Your task to perform on an android device: check the backup settings in the google photos Image 0: 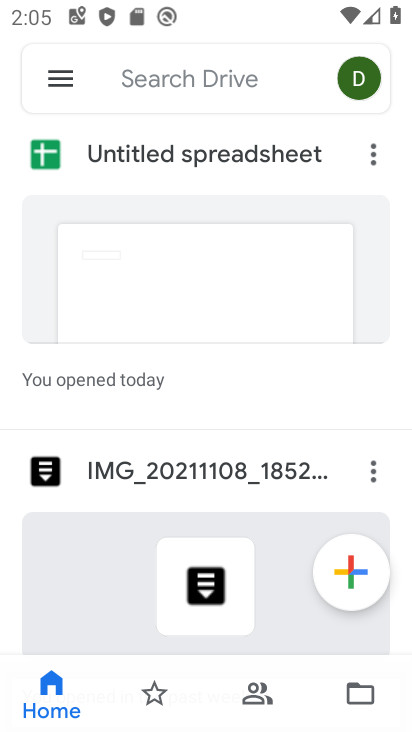
Step 0: press home button
Your task to perform on an android device: check the backup settings in the google photos Image 1: 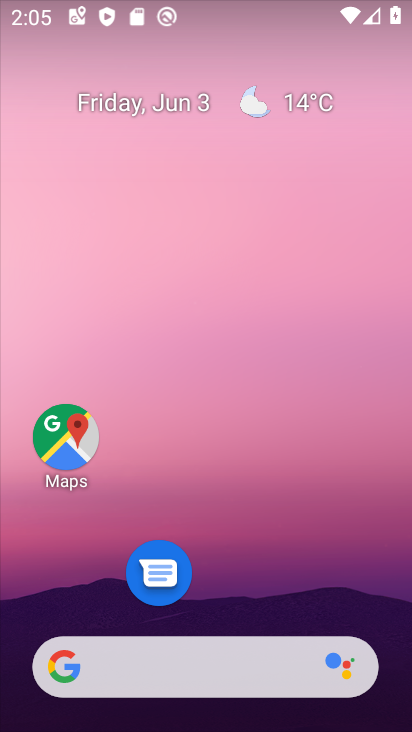
Step 1: drag from (333, 661) to (337, 59)
Your task to perform on an android device: check the backup settings in the google photos Image 2: 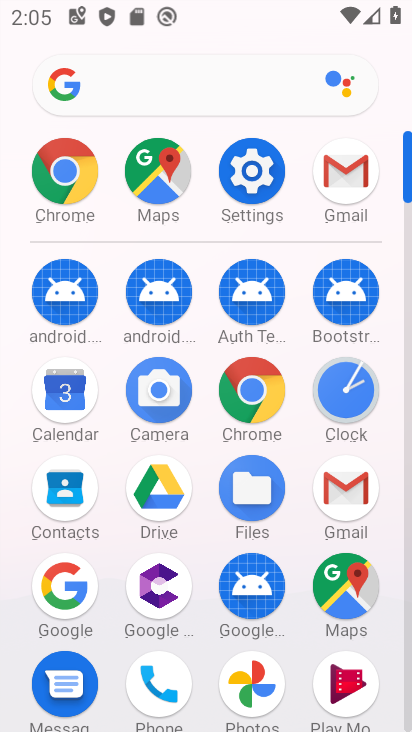
Step 2: click (255, 684)
Your task to perform on an android device: check the backup settings in the google photos Image 3: 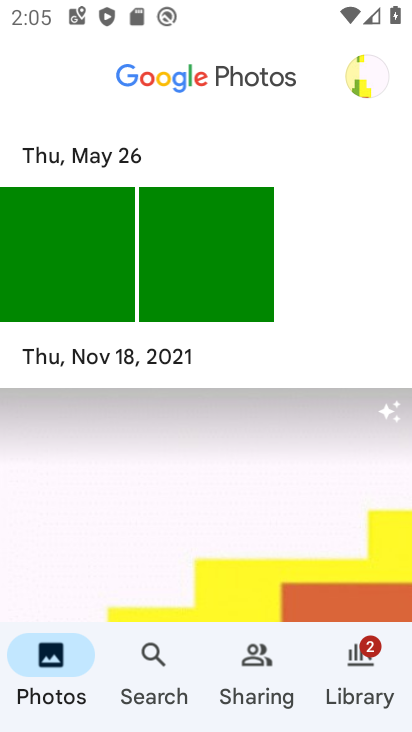
Step 3: click (379, 85)
Your task to perform on an android device: check the backup settings in the google photos Image 4: 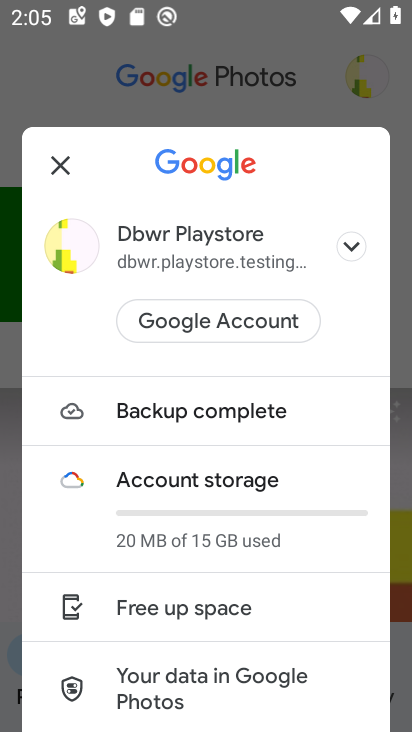
Step 4: click (213, 407)
Your task to perform on an android device: check the backup settings in the google photos Image 5: 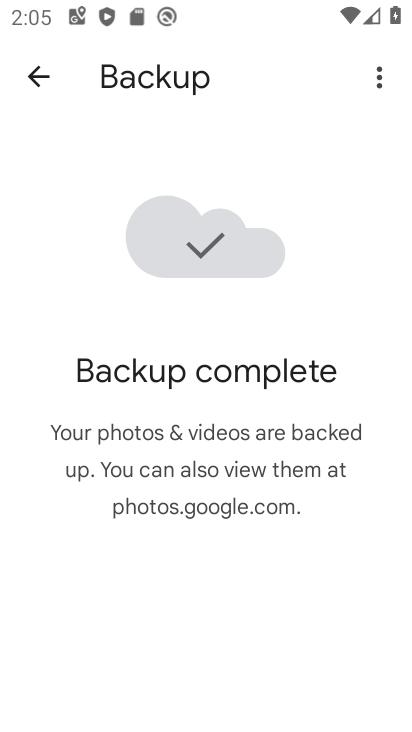
Step 5: click (365, 79)
Your task to perform on an android device: check the backup settings in the google photos Image 6: 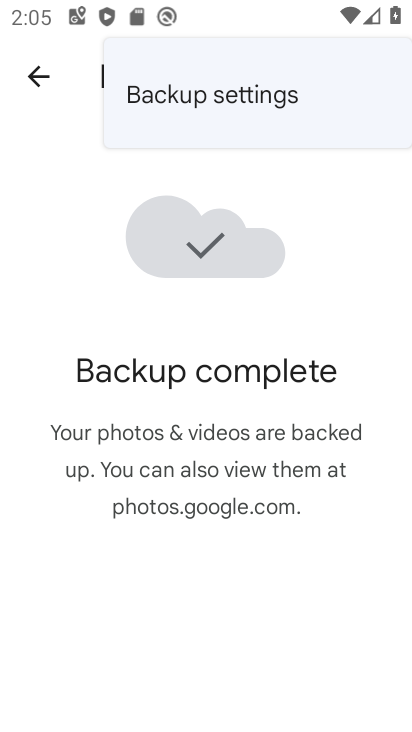
Step 6: click (294, 100)
Your task to perform on an android device: check the backup settings in the google photos Image 7: 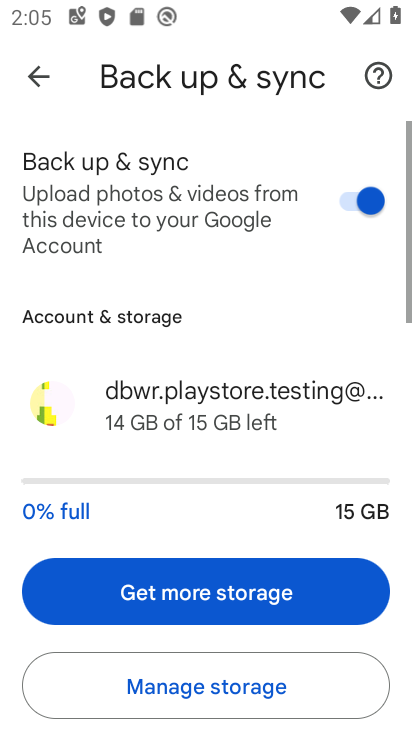
Step 7: task complete